Your task to perform on an android device: Open Maps and search for coffee Image 0: 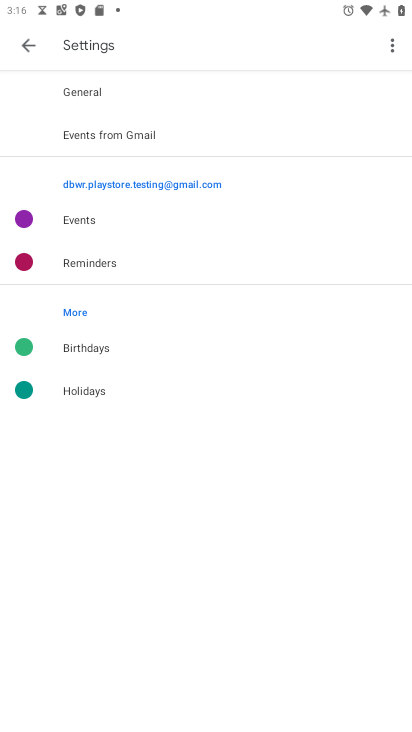
Step 0: press home button
Your task to perform on an android device: Open Maps and search for coffee Image 1: 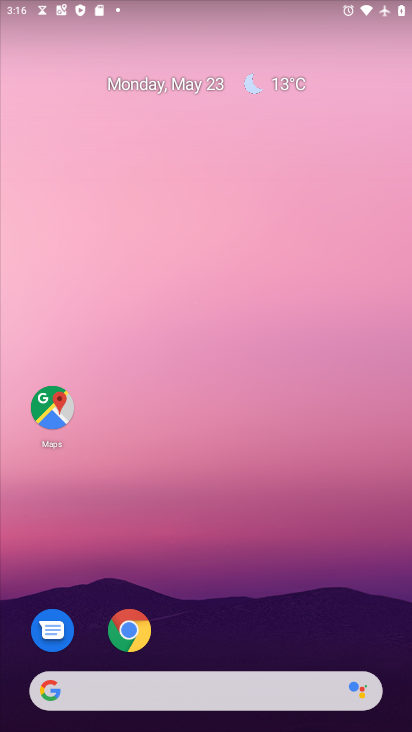
Step 1: click (48, 419)
Your task to perform on an android device: Open Maps and search for coffee Image 2: 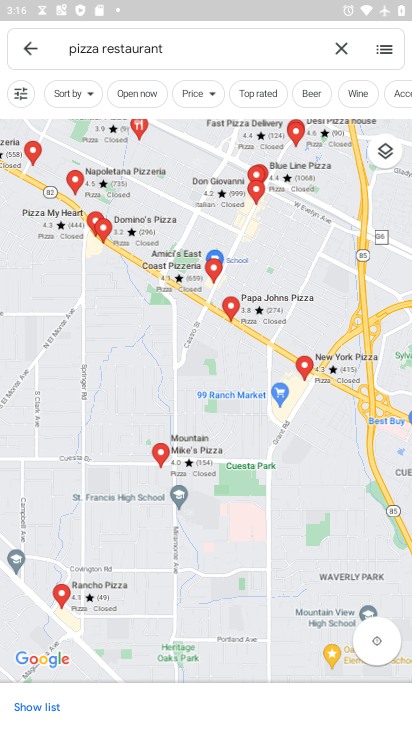
Step 2: click (340, 48)
Your task to perform on an android device: Open Maps and search for coffee Image 3: 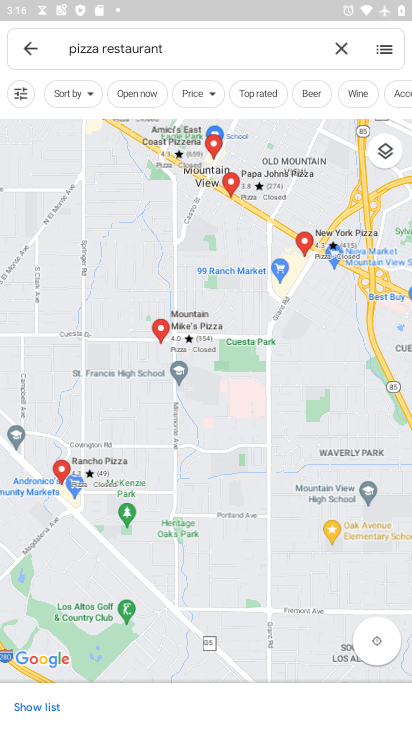
Step 3: click (169, 44)
Your task to perform on an android device: Open Maps and search for coffee Image 4: 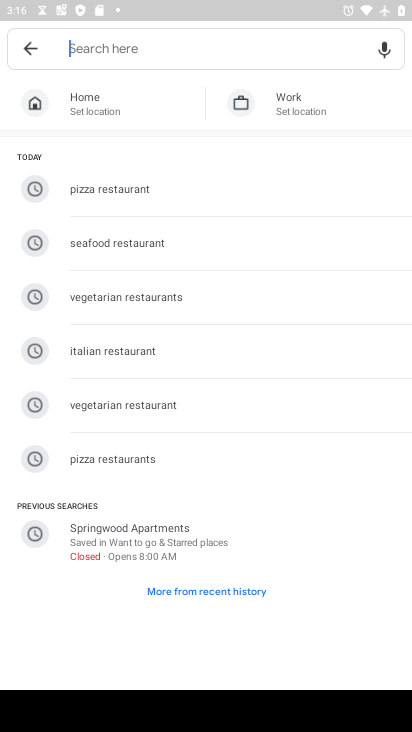
Step 4: type "coffee"
Your task to perform on an android device: Open Maps and search for coffee Image 5: 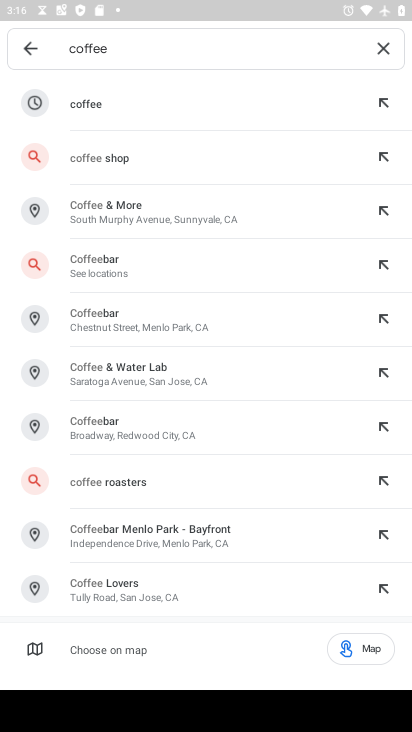
Step 5: click (153, 113)
Your task to perform on an android device: Open Maps and search for coffee Image 6: 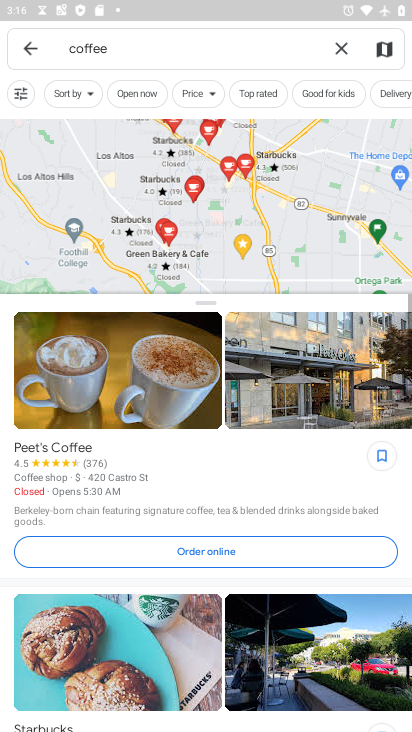
Step 6: task complete